Your task to perform on an android device: open a bookmark in the chrome app Image 0: 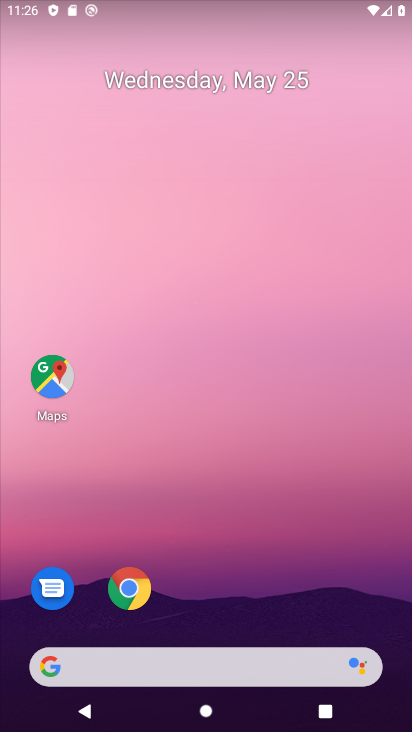
Step 0: press home button
Your task to perform on an android device: open a bookmark in the chrome app Image 1: 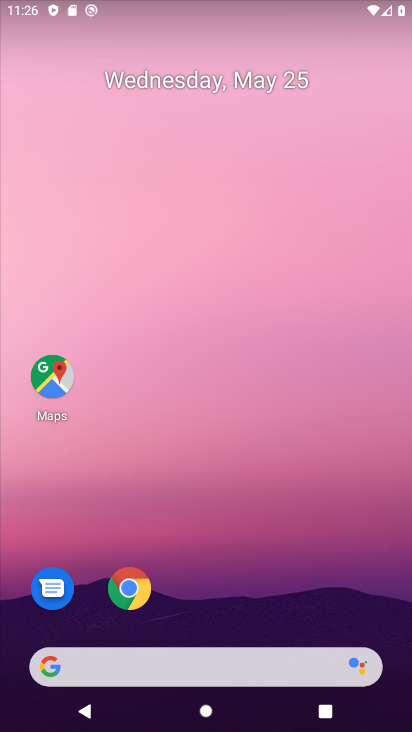
Step 1: click (129, 585)
Your task to perform on an android device: open a bookmark in the chrome app Image 2: 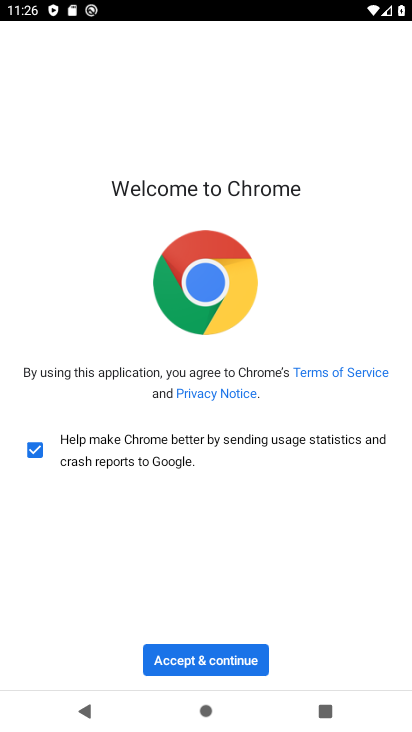
Step 2: click (202, 650)
Your task to perform on an android device: open a bookmark in the chrome app Image 3: 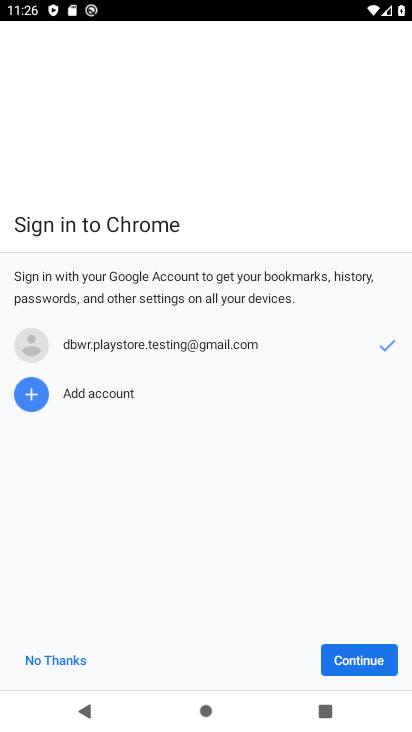
Step 3: click (349, 657)
Your task to perform on an android device: open a bookmark in the chrome app Image 4: 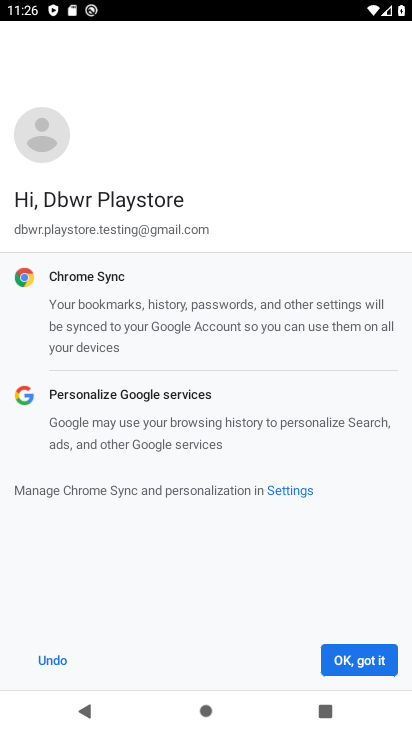
Step 4: click (349, 657)
Your task to perform on an android device: open a bookmark in the chrome app Image 5: 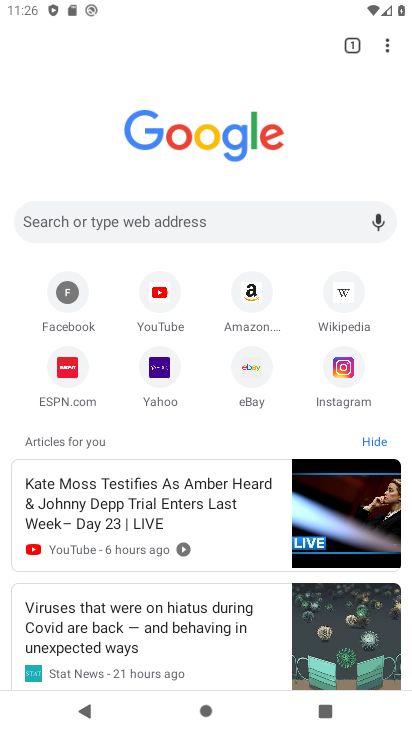
Step 5: click (385, 41)
Your task to perform on an android device: open a bookmark in the chrome app Image 6: 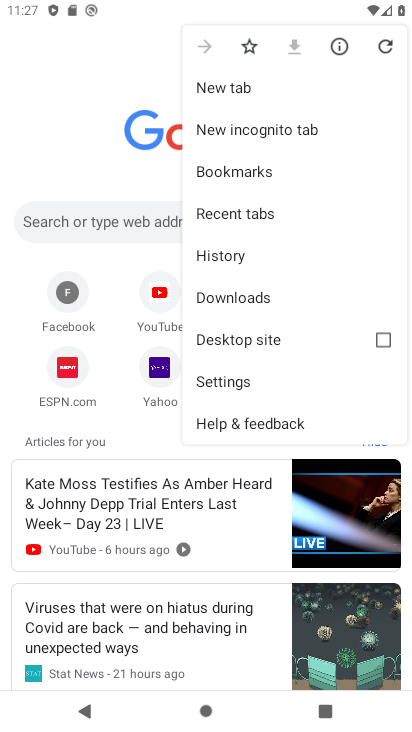
Step 6: click (257, 174)
Your task to perform on an android device: open a bookmark in the chrome app Image 7: 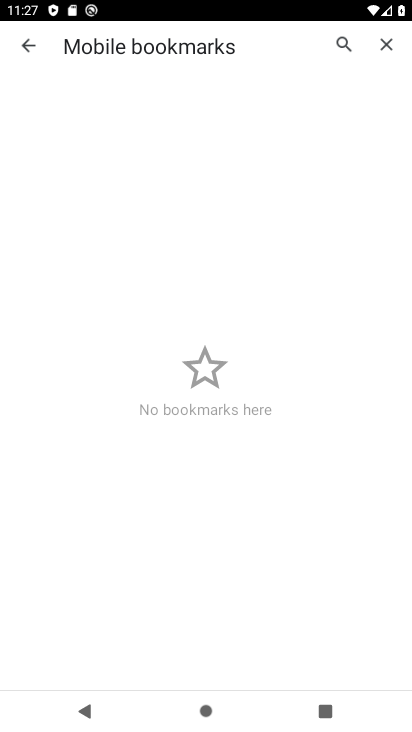
Step 7: task complete